Your task to perform on an android device: Go to Yahoo.com Image 0: 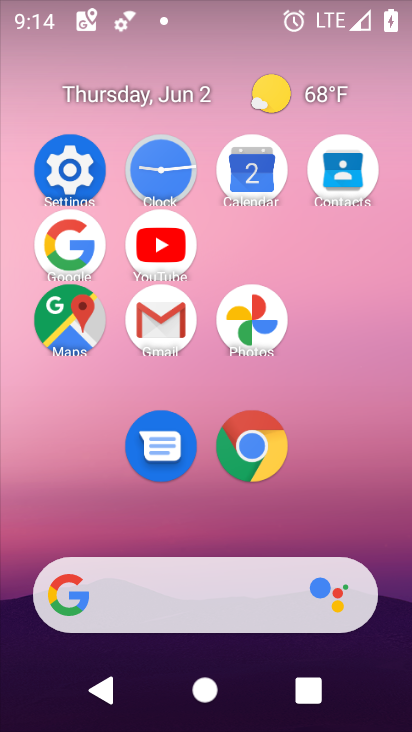
Step 0: click (251, 442)
Your task to perform on an android device: Go to Yahoo.com Image 1: 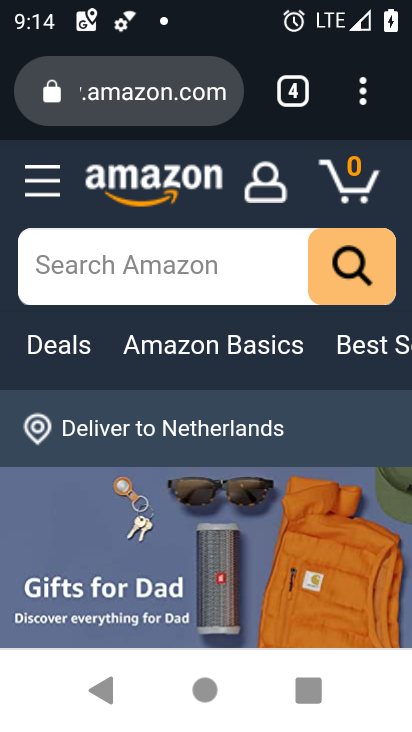
Step 1: click (305, 81)
Your task to perform on an android device: Go to Yahoo.com Image 2: 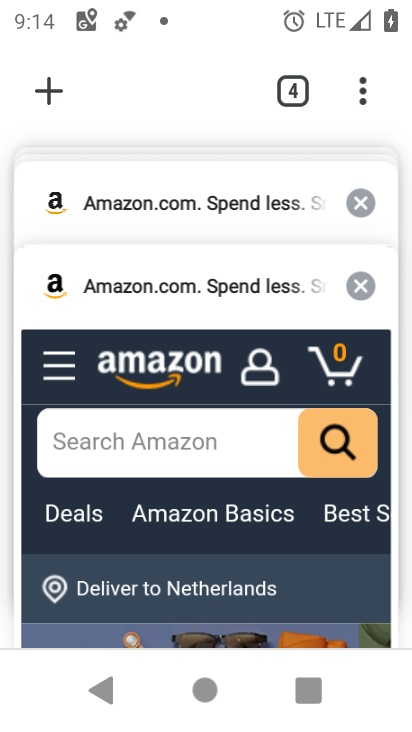
Step 2: click (44, 96)
Your task to perform on an android device: Go to Yahoo.com Image 3: 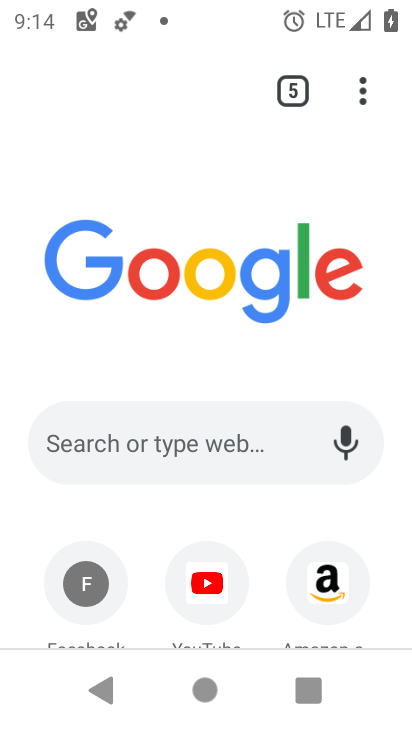
Step 3: drag from (269, 537) to (325, 192)
Your task to perform on an android device: Go to Yahoo.com Image 4: 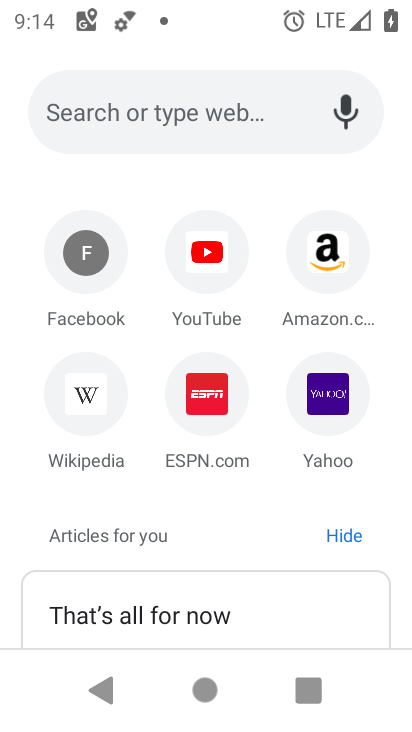
Step 4: click (342, 397)
Your task to perform on an android device: Go to Yahoo.com Image 5: 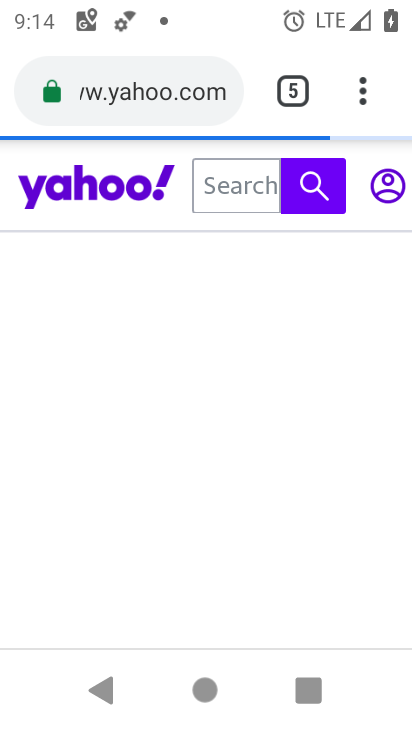
Step 5: task complete